Your task to perform on an android device: delete the emails in spam in the gmail app Image 0: 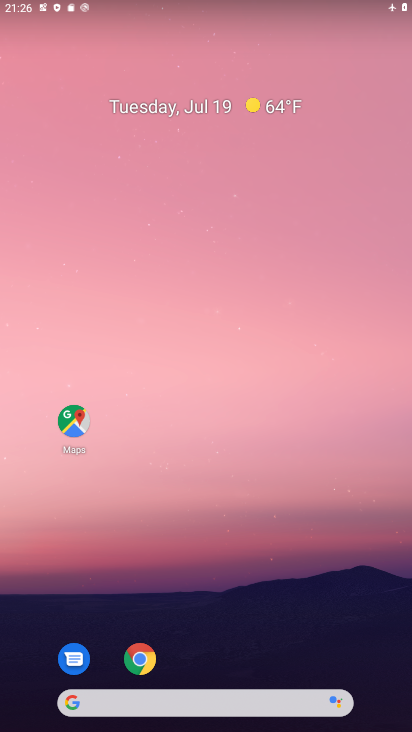
Step 0: drag from (192, 646) to (271, 4)
Your task to perform on an android device: delete the emails in spam in the gmail app Image 1: 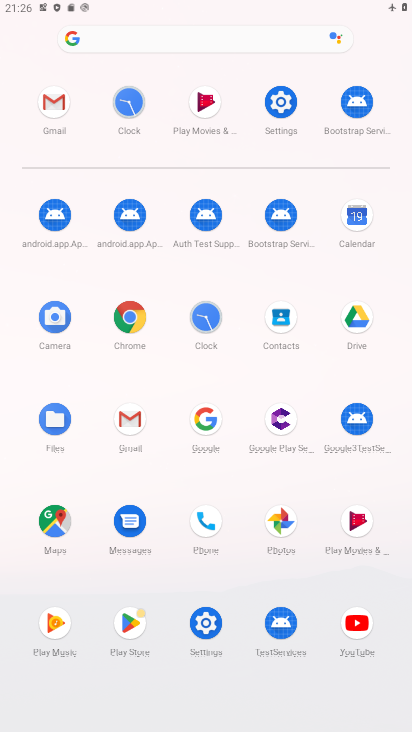
Step 1: click (121, 411)
Your task to perform on an android device: delete the emails in spam in the gmail app Image 2: 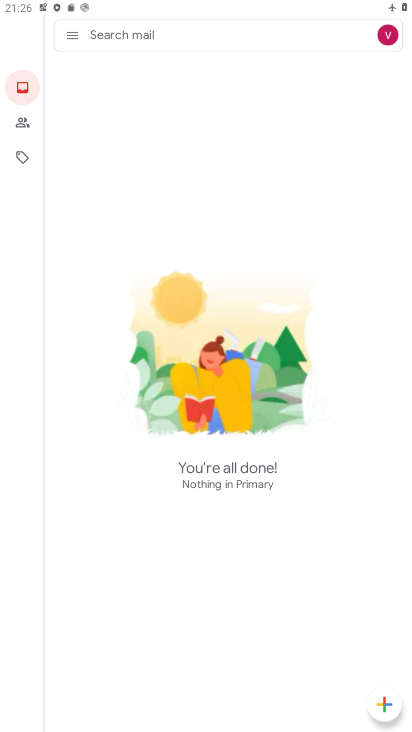
Step 2: click (65, 51)
Your task to perform on an android device: delete the emails in spam in the gmail app Image 3: 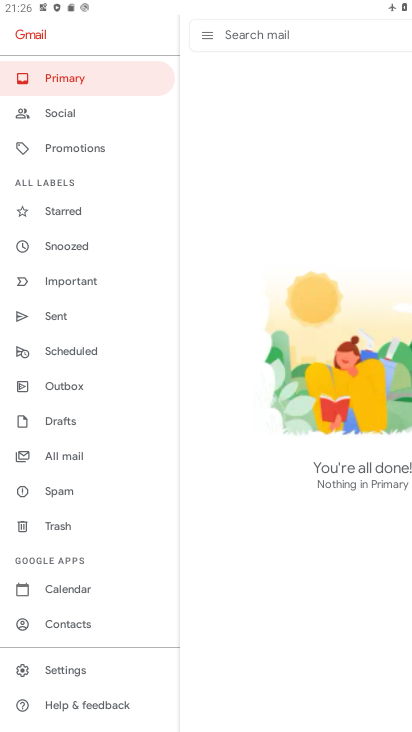
Step 3: click (74, 494)
Your task to perform on an android device: delete the emails in spam in the gmail app Image 4: 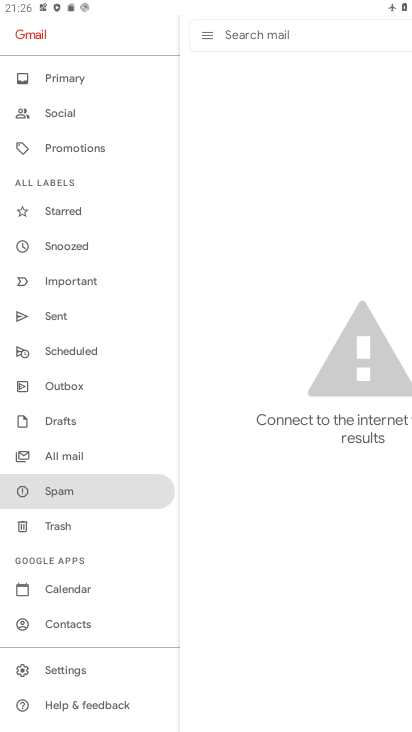
Step 4: drag from (283, 7) to (286, 528)
Your task to perform on an android device: delete the emails in spam in the gmail app Image 5: 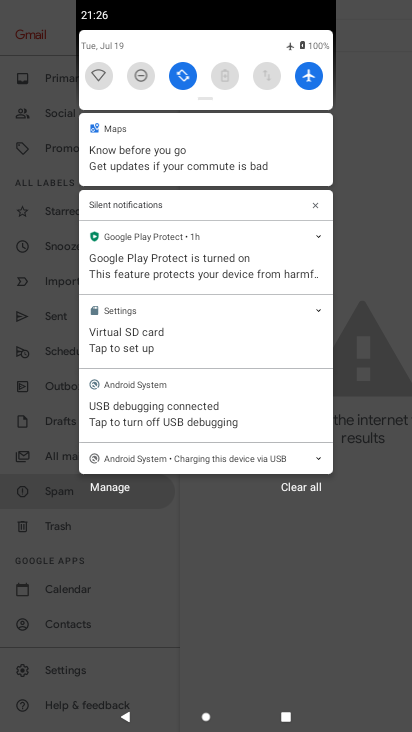
Step 5: click (314, 83)
Your task to perform on an android device: delete the emails in spam in the gmail app Image 6: 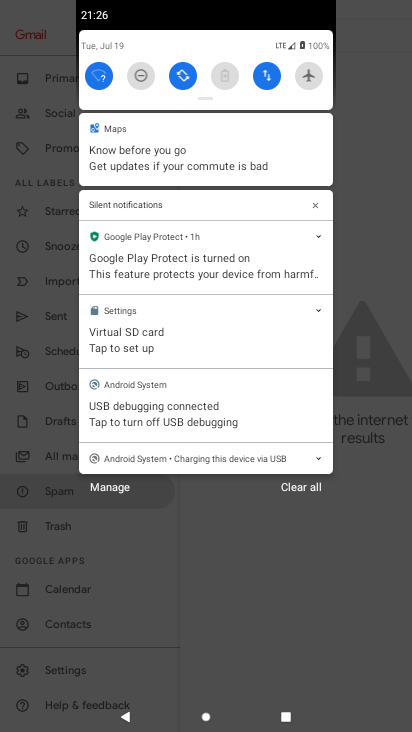
Step 6: task complete